Your task to perform on an android device: Open Wikipedia Image 0: 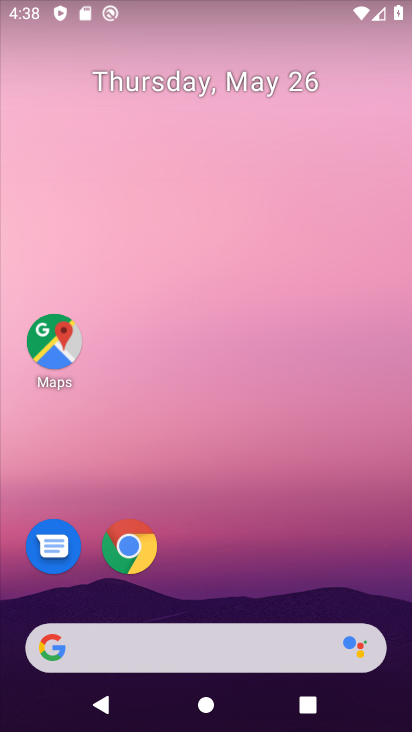
Step 0: click (142, 541)
Your task to perform on an android device: Open Wikipedia Image 1: 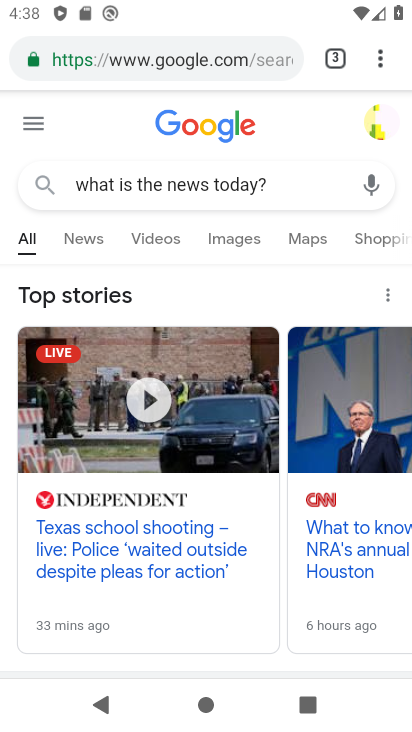
Step 1: click (345, 63)
Your task to perform on an android device: Open Wikipedia Image 2: 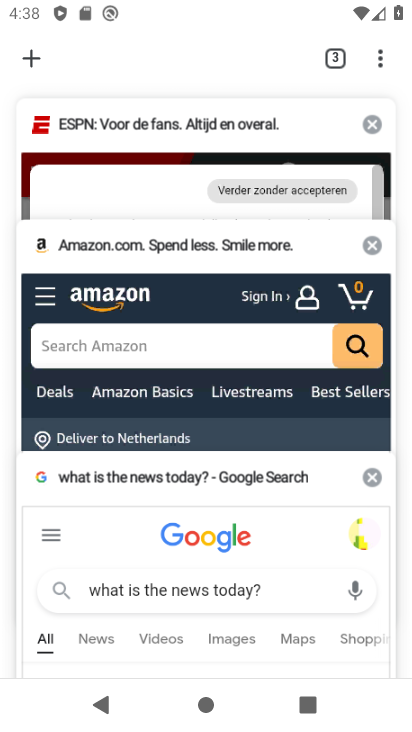
Step 2: click (32, 68)
Your task to perform on an android device: Open Wikipedia Image 3: 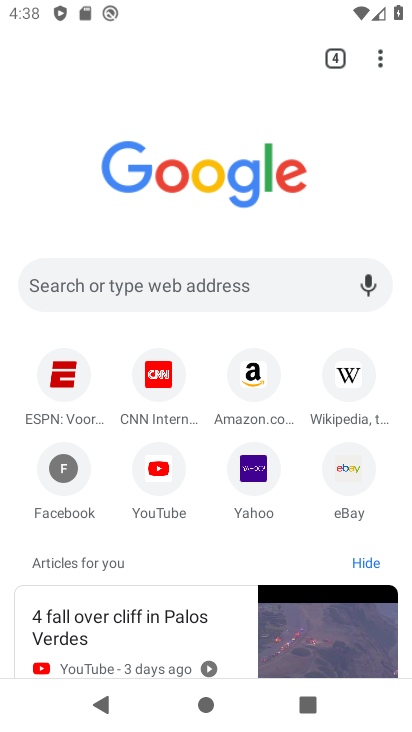
Step 3: click (338, 385)
Your task to perform on an android device: Open Wikipedia Image 4: 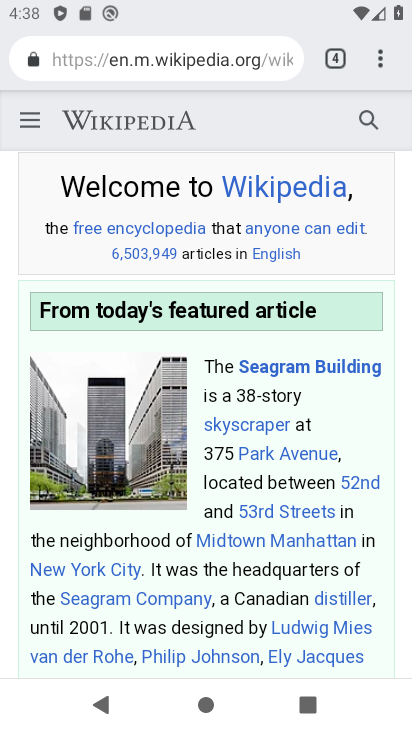
Step 4: task complete